Your task to perform on an android device: Open network settings Image 0: 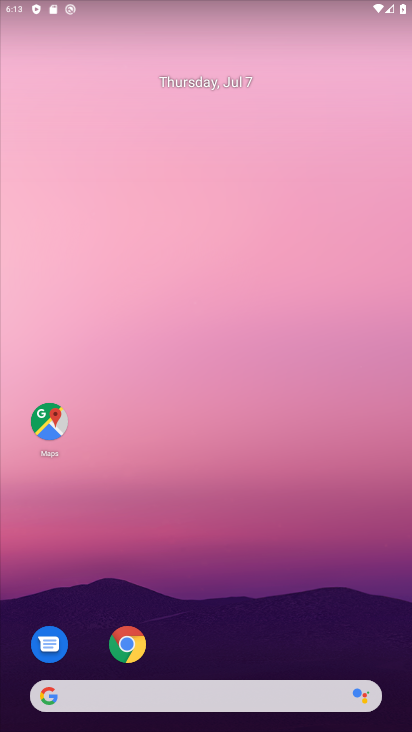
Step 0: press home button
Your task to perform on an android device: Open network settings Image 1: 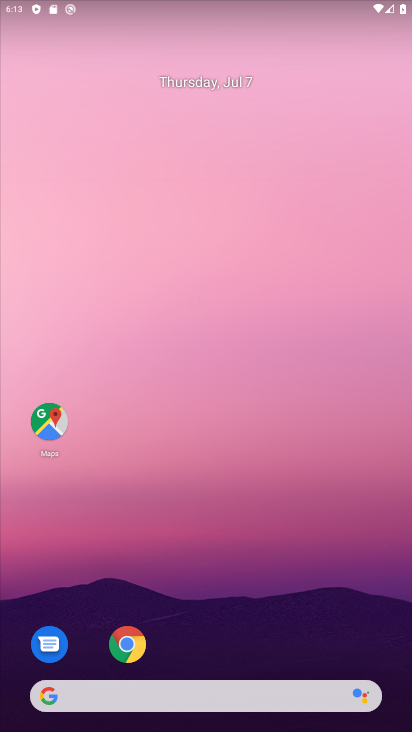
Step 1: drag from (273, 603) to (299, 185)
Your task to perform on an android device: Open network settings Image 2: 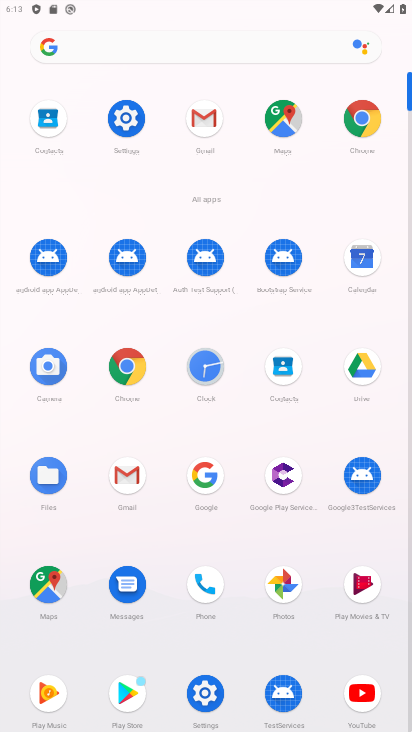
Step 2: click (130, 147)
Your task to perform on an android device: Open network settings Image 3: 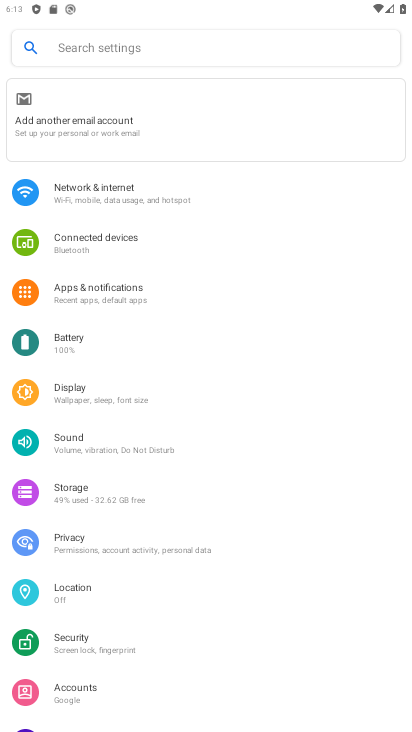
Step 3: click (122, 203)
Your task to perform on an android device: Open network settings Image 4: 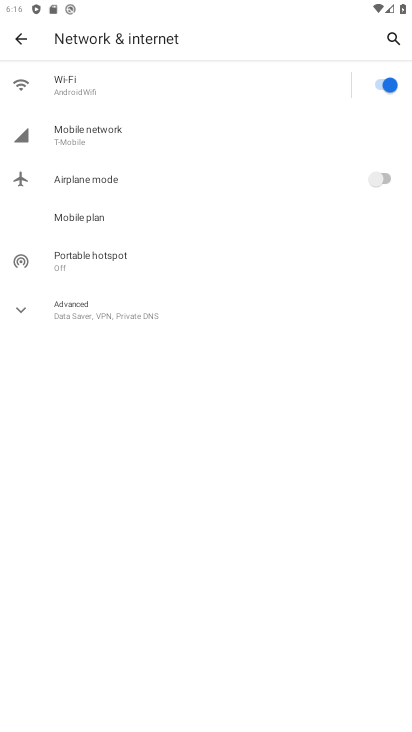
Step 4: task complete